Your task to perform on an android device: Find coffee shops on Maps Image 0: 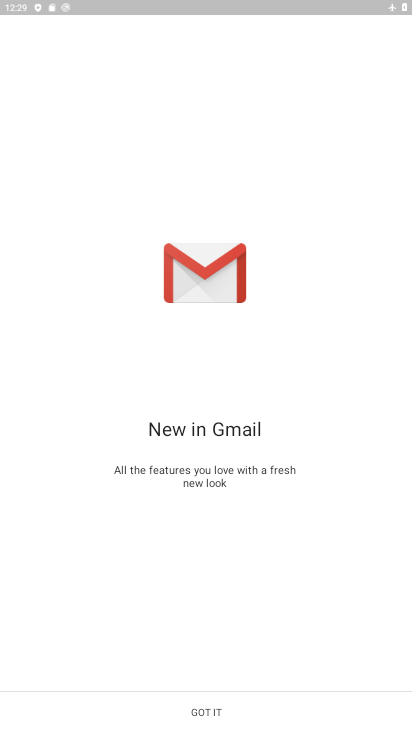
Step 0: press home button
Your task to perform on an android device: Find coffee shops on Maps Image 1: 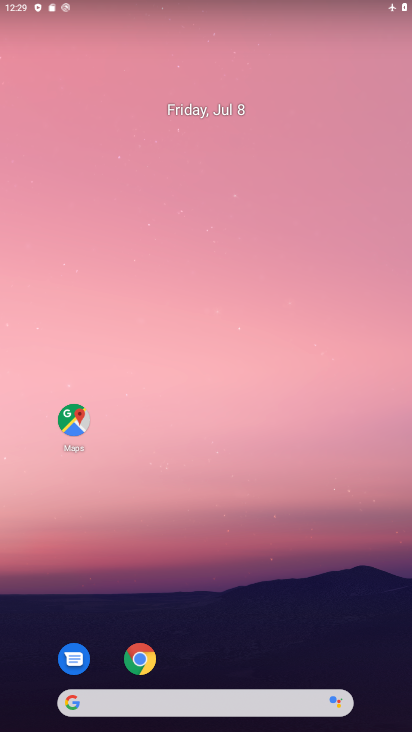
Step 1: click (73, 421)
Your task to perform on an android device: Find coffee shops on Maps Image 2: 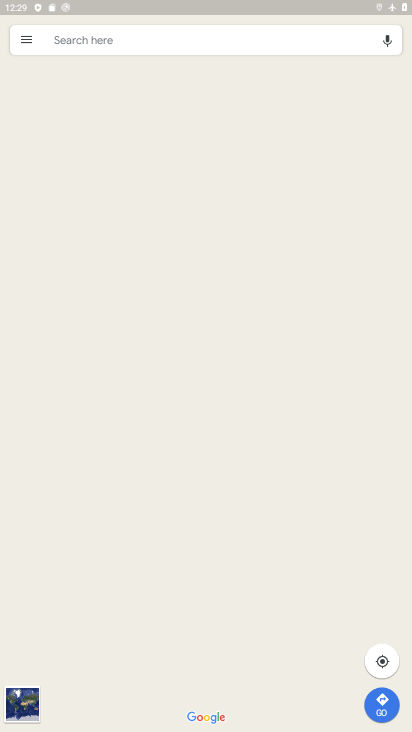
Step 2: click (94, 42)
Your task to perform on an android device: Find coffee shops on Maps Image 3: 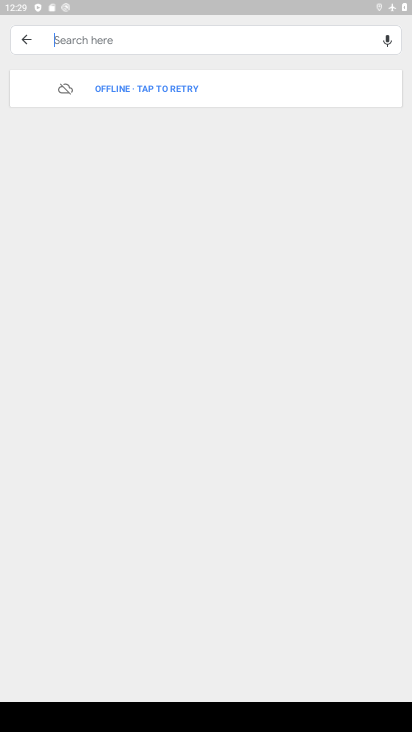
Step 3: type "coffee shop"
Your task to perform on an android device: Find coffee shops on Maps Image 4: 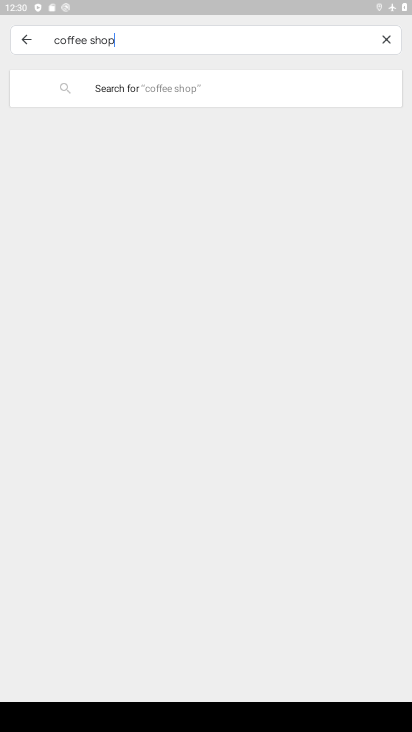
Step 4: task complete